Your task to perform on an android device: open the mobile data screen to see how much data has been used Image 0: 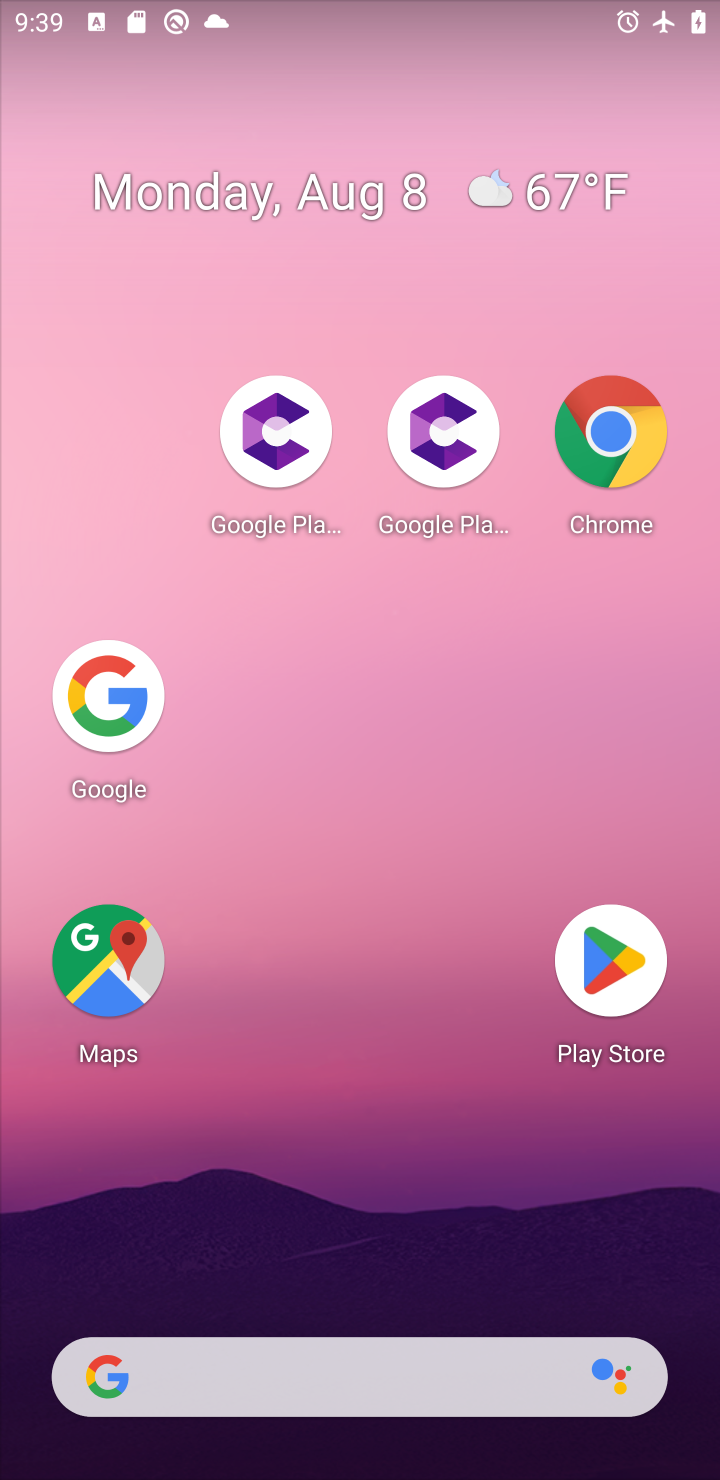
Step 0: drag from (407, 15) to (240, 1183)
Your task to perform on an android device: open the mobile data screen to see how much data has been used Image 1: 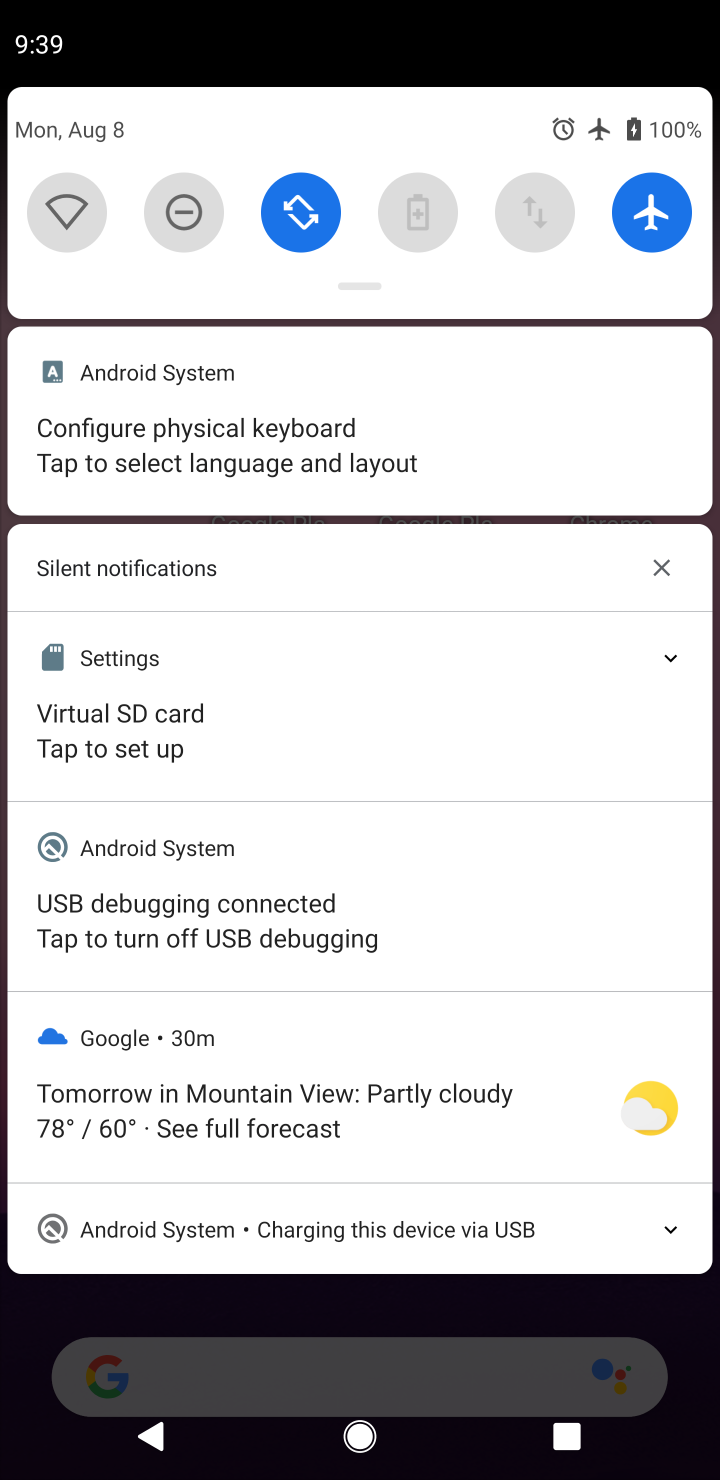
Step 1: click (550, 206)
Your task to perform on an android device: open the mobile data screen to see how much data has been used Image 2: 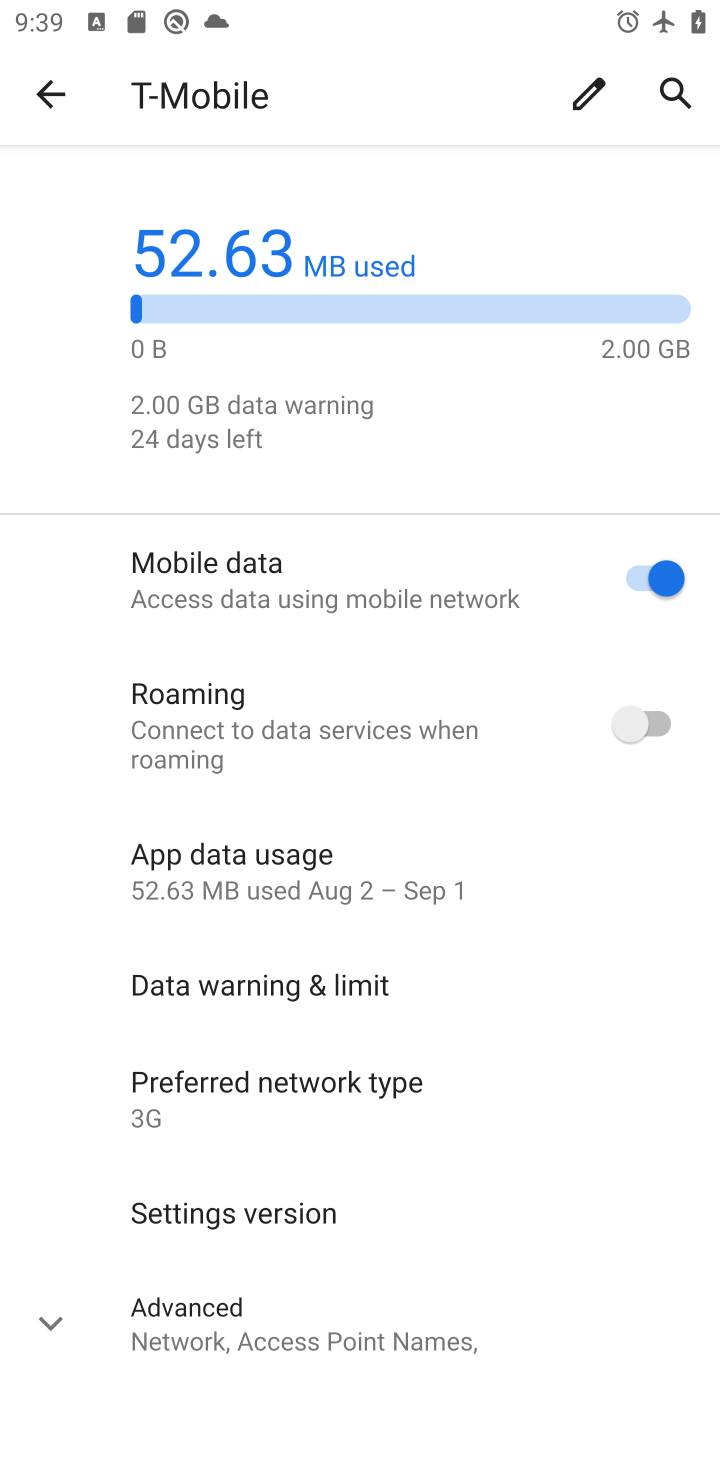
Step 2: task complete